Your task to perform on an android device: turn on priority inbox in the gmail app Image 0: 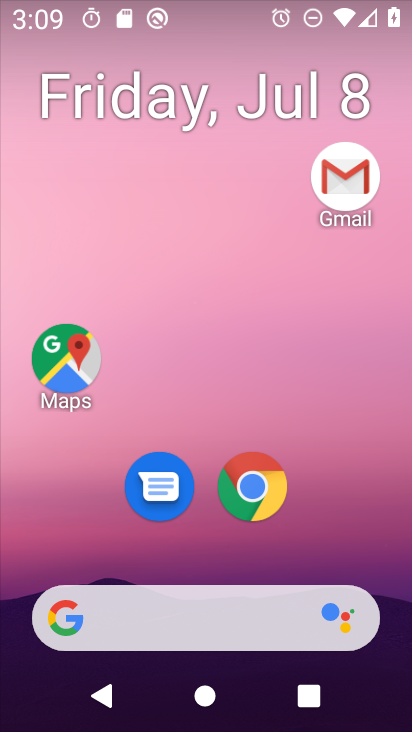
Step 0: drag from (358, 530) to (332, 149)
Your task to perform on an android device: turn on priority inbox in the gmail app Image 1: 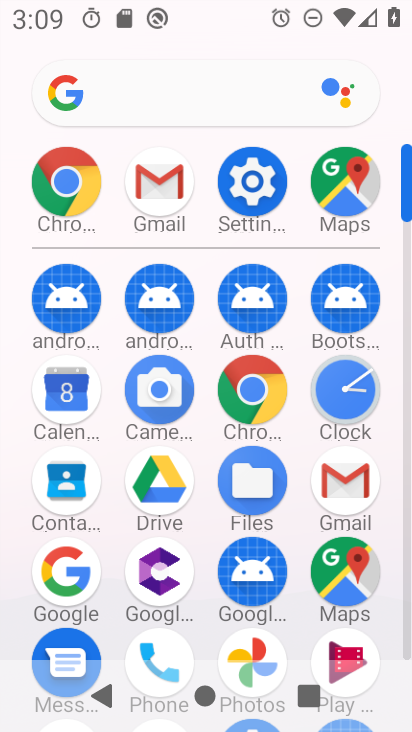
Step 1: click (359, 496)
Your task to perform on an android device: turn on priority inbox in the gmail app Image 2: 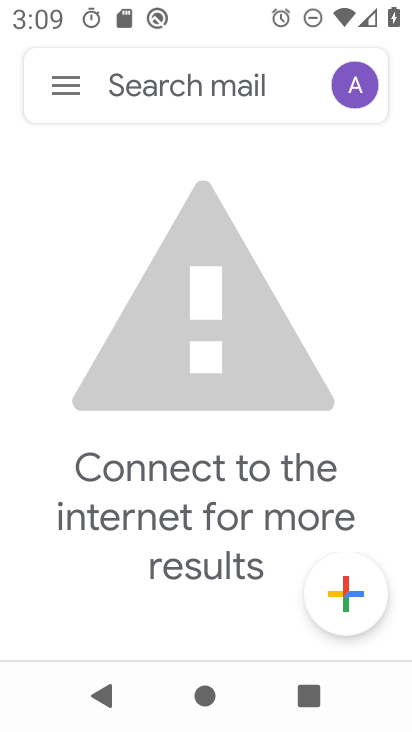
Step 2: click (69, 86)
Your task to perform on an android device: turn on priority inbox in the gmail app Image 3: 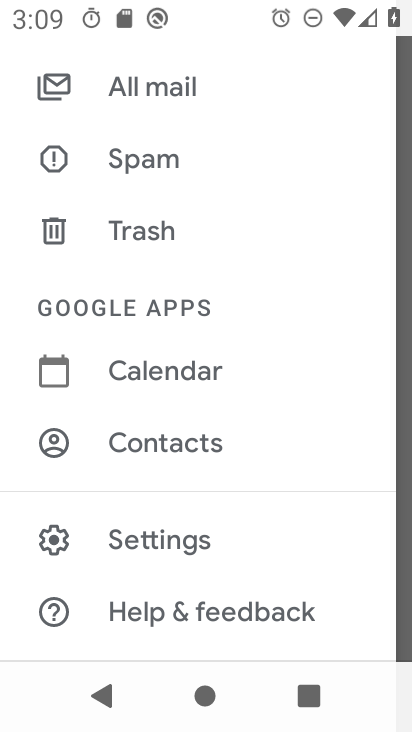
Step 3: click (229, 560)
Your task to perform on an android device: turn on priority inbox in the gmail app Image 4: 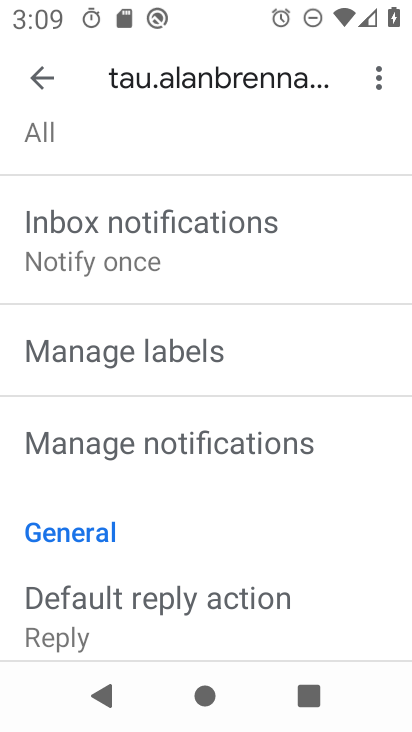
Step 4: drag from (334, 340) to (341, 418)
Your task to perform on an android device: turn on priority inbox in the gmail app Image 5: 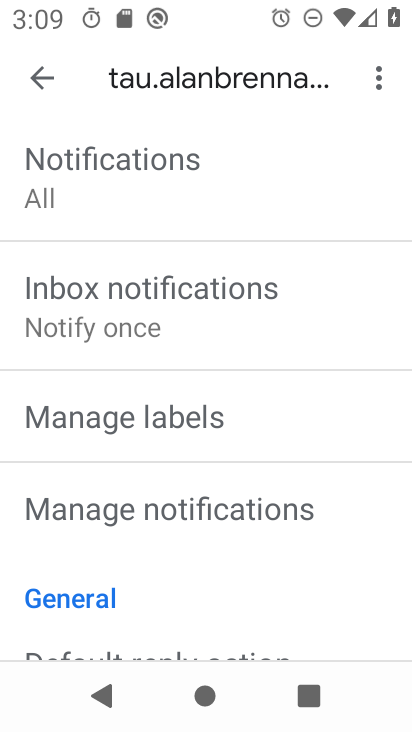
Step 5: drag from (334, 293) to (334, 420)
Your task to perform on an android device: turn on priority inbox in the gmail app Image 6: 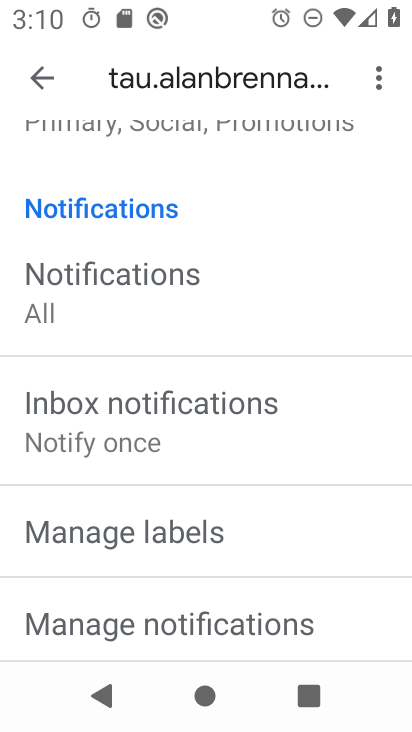
Step 6: drag from (339, 272) to (341, 393)
Your task to perform on an android device: turn on priority inbox in the gmail app Image 7: 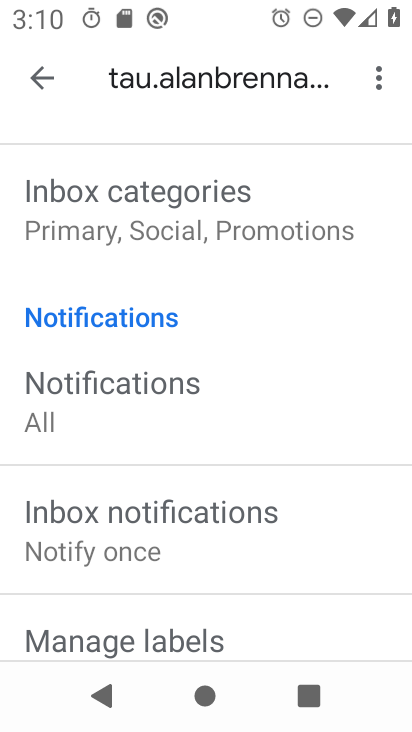
Step 7: drag from (317, 297) to (328, 477)
Your task to perform on an android device: turn on priority inbox in the gmail app Image 8: 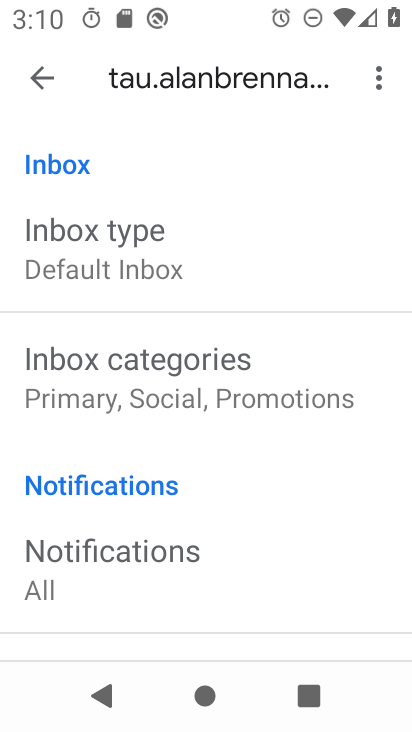
Step 8: drag from (320, 257) to (315, 456)
Your task to perform on an android device: turn on priority inbox in the gmail app Image 9: 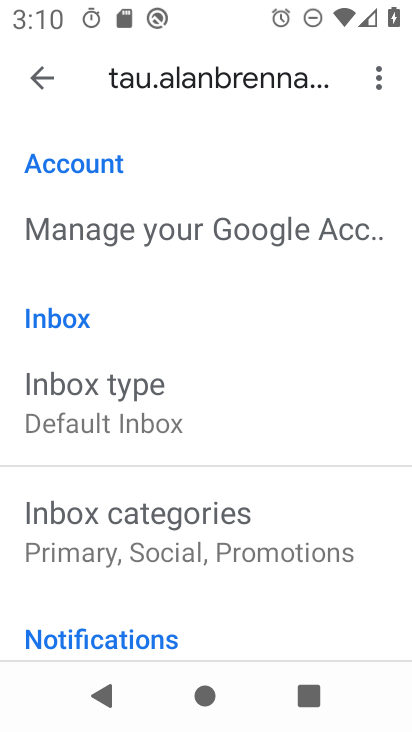
Step 9: click (186, 405)
Your task to perform on an android device: turn on priority inbox in the gmail app Image 10: 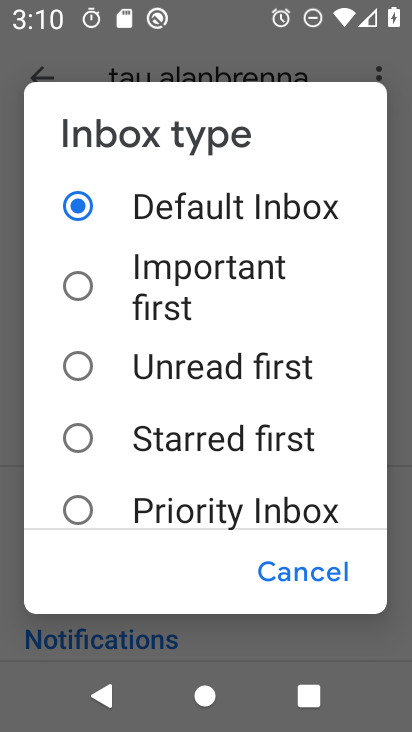
Step 10: drag from (213, 478) to (220, 320)
Your task to perform on an android device: turn on priority inbox in the gmail app Image 11: 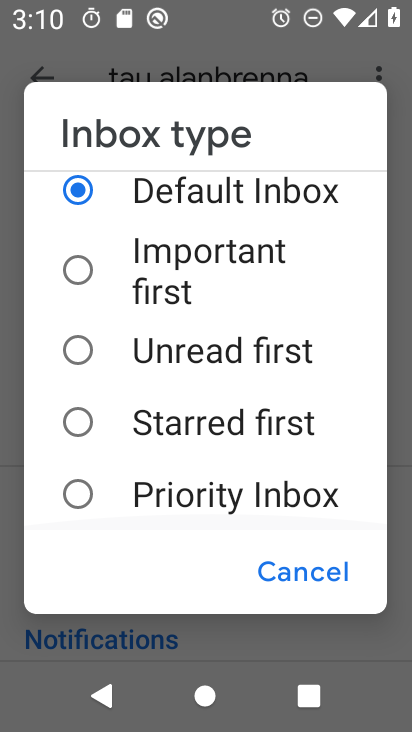
Step 11: click (231, 502)
Your task to perform on an android device: turn on priority inbox in the gmail app Image 12: 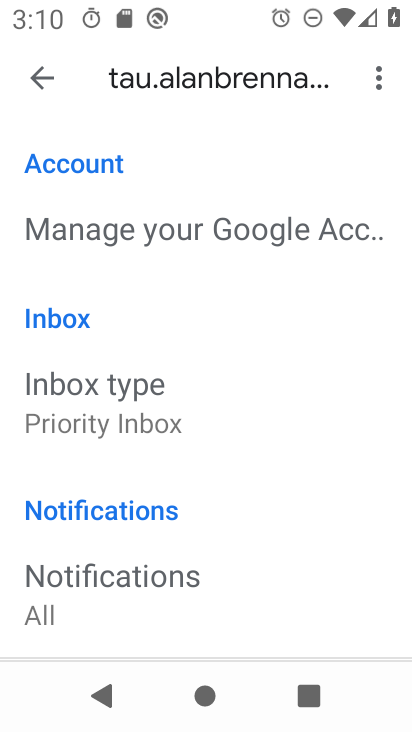
Step 12: task complete